Your task to perform on an android device: Open Google Chrome Image 0: 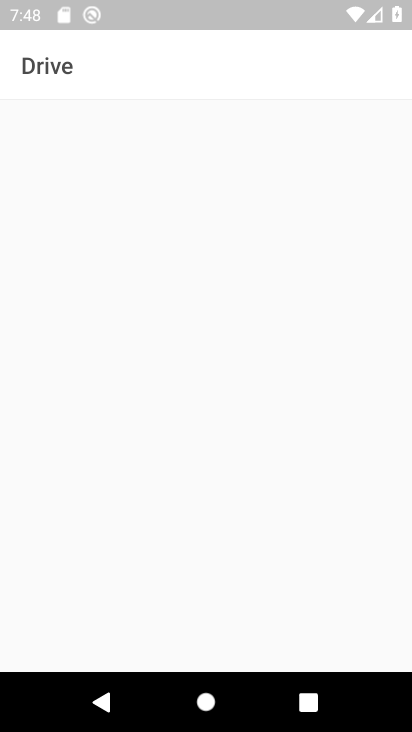
Step 0: drag from (368, 561) to (295, 162)
Your task to perform on an android device: Open Google Chrome Image 1: 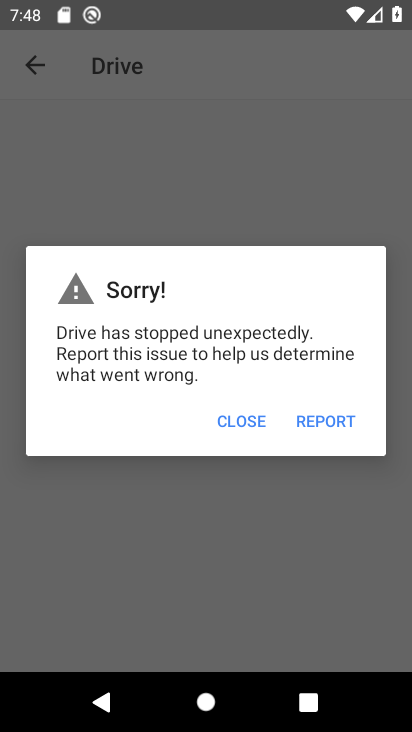
Step 1: press home button
Your task to perform on an android device: Open Google Chrome Image 2: 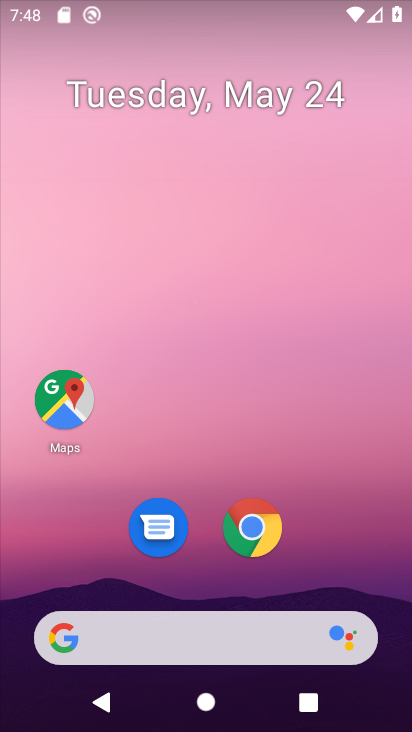
Step 2: click (255, 532)
Your task to perform on an android device: Open Google Chrome Image 3: 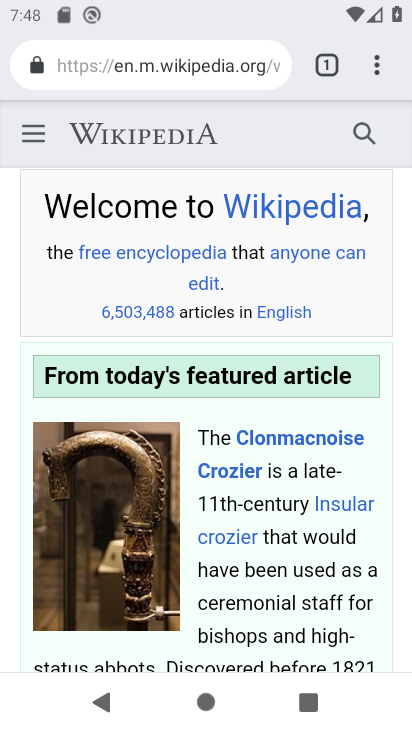
Step 3: task complete